Your task to perform on an android device: Show me productivity apps on the Play Store Image 0: 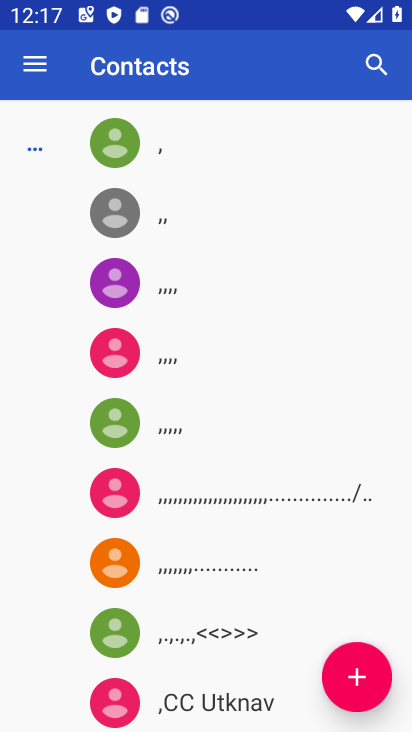
Step 0: press back button
Your task to perform on an android device: Show me productivity apps on the Play Store Image 1: 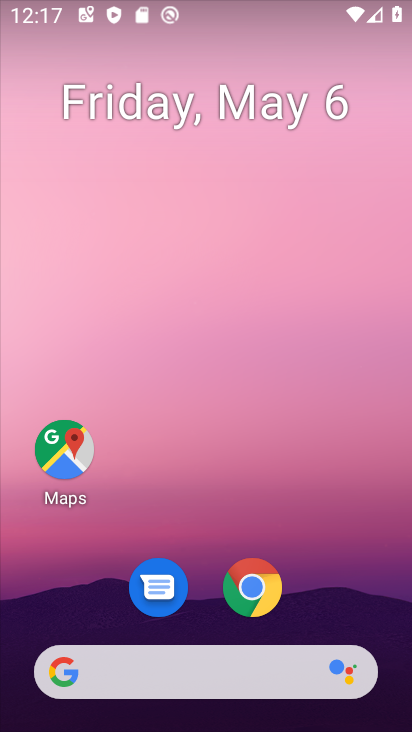
Step 1: drag from (185, 558) to (294, 53)
Your task to perform on an android device: Show me productivity apps on the Play Store Image 2: 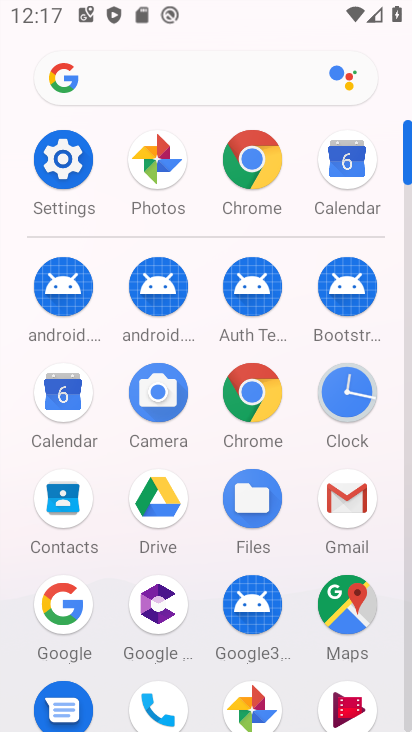
Step 2: drag from (168, 652) to (337, 106)
Your task to perform on an android device: Show me productivity apps on the Play Store Image 3: 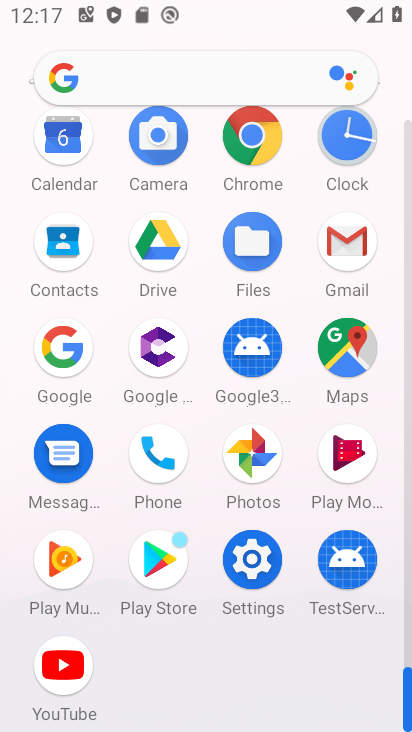
Step 3: click (158, 567)
Your task to perform on an android device: Show me productivity apps on the Play Store Image 4: 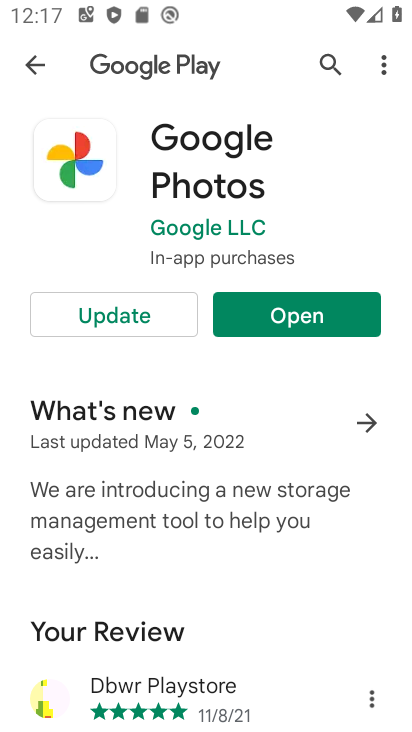
Step 4: click (46, 55)
Your task to perform on an android device: Show me productivity apps on the Play Store Image 5: 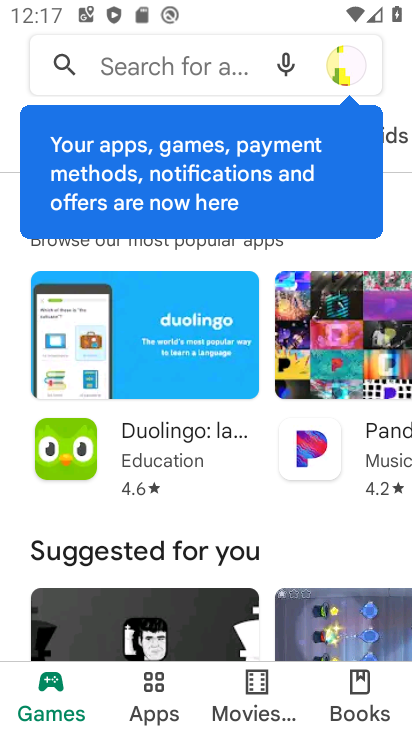
Step 5: click (148, 702)
Your task to perform on an android device: Show me productivity apps on the Play Store Image 6: 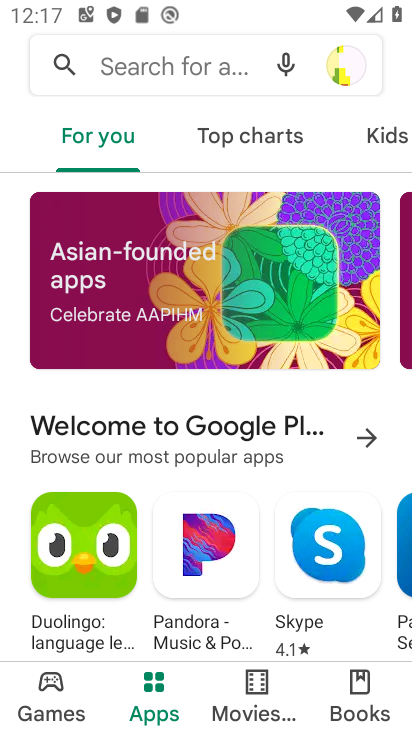
Step 6: drag from (110, 626) to (231, 160)
Your task to perform on an android device: Show me productivity apps on the Play Store Image 7: 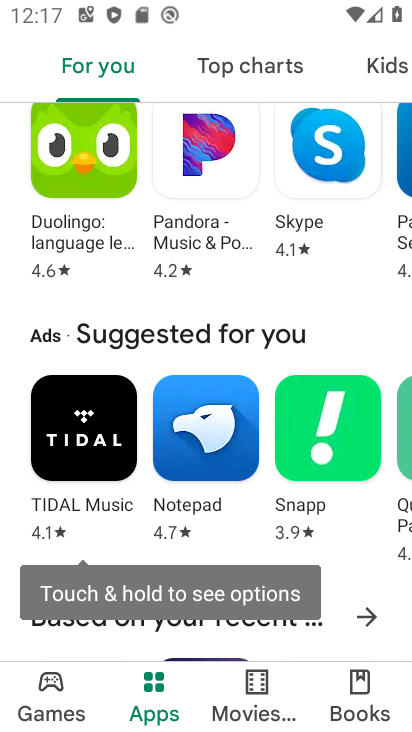
Step 7: drag from (176, 543) to (255, 114)
Your task to perform on an android device: Show me productivity apps on the Play Store Image 8: 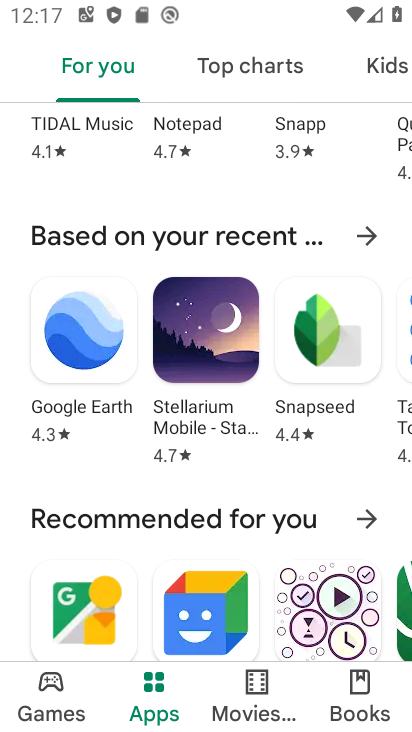
Step 8: drag from (240, 163) to (192, 362)
Your task to perform on an android device: Show me productivity apps on the Play Store Image 9: 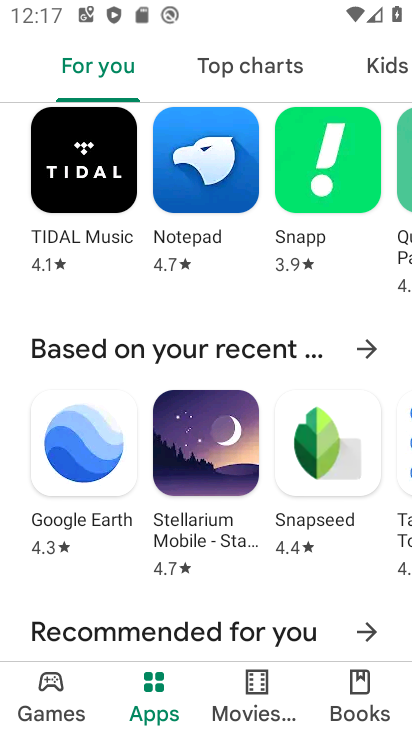
Step 9: drag from (146, 615) to (253, 164)
Your task to perform on an android device: Show me productivity apps on the Play Store Image 10: 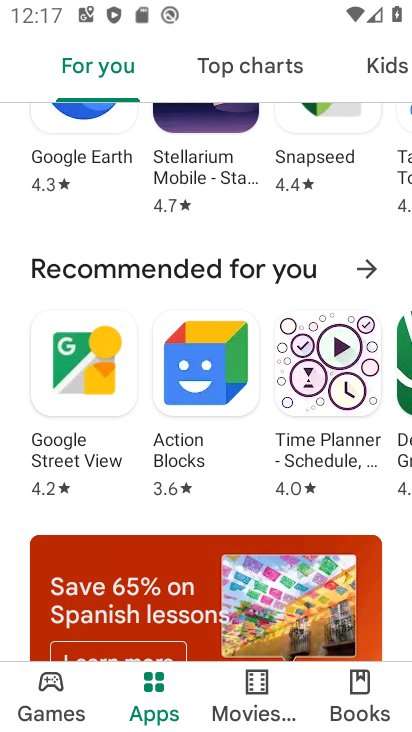
Step 10: drag from (126, 596) to (289, 60)
Your task to perform on an android device: Show me productivity apps on the Play Store Image 11: 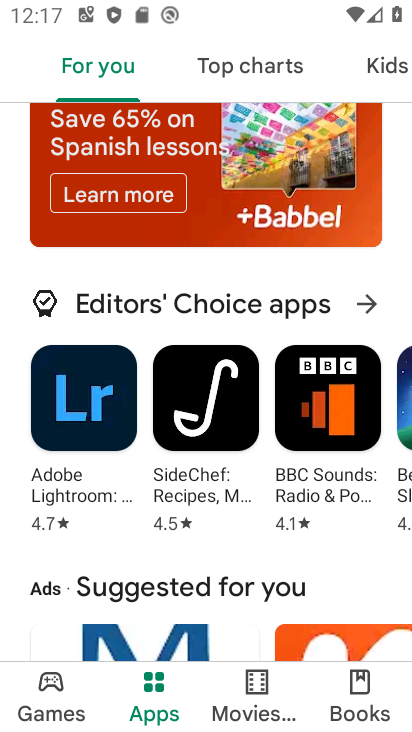
Step 11: drag from (140, 530) to (179, 381)
Your task to perform on an android device: Show me productivity apps on the Play Store Image 12: 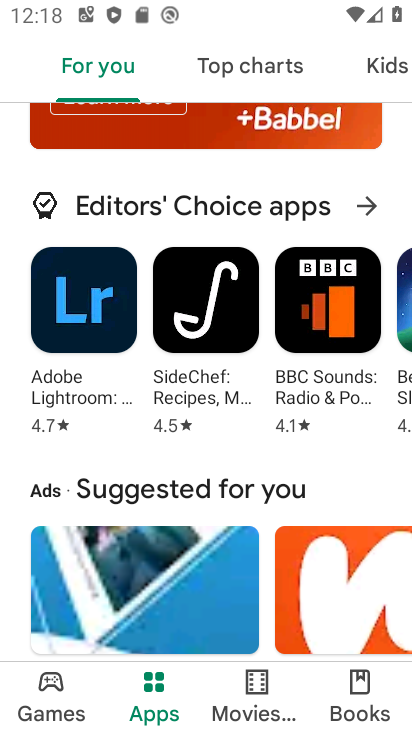
Step 12: drag from (111, 567) to (216, 68)
Your task to perform on an android device: Show me productivity apps on the Play Store Image 13: 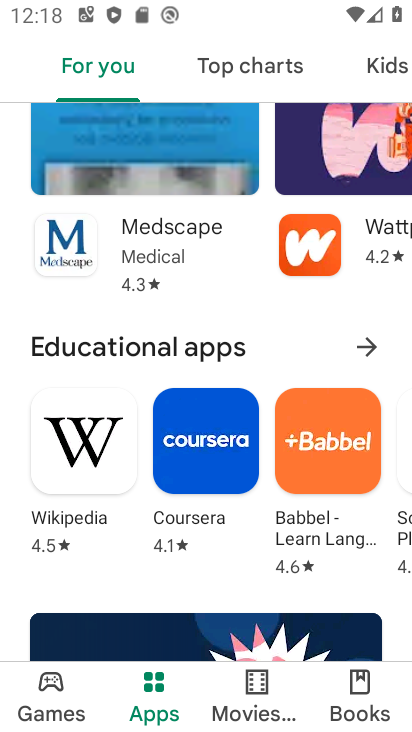
Step 13: drag from (128, 611) to (220, 91)
Your task to perform on an android device: Show me productivity apps on the Play Store Image 14: 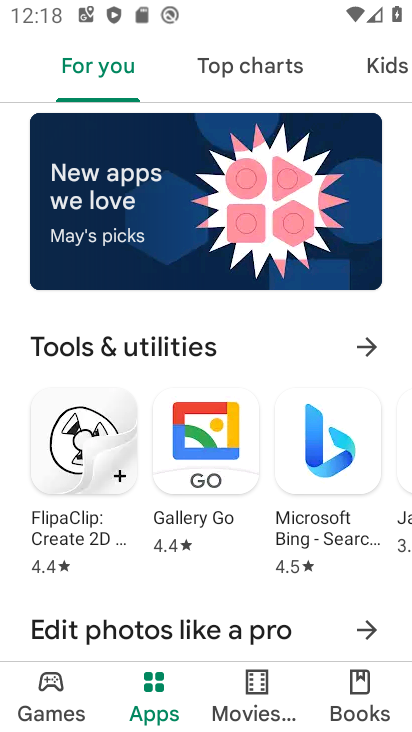
Step 14: drag from (153, 651) to (280, 68)
Your task to perform on an android device: Show me productivity apps on the Play Store Image 15: 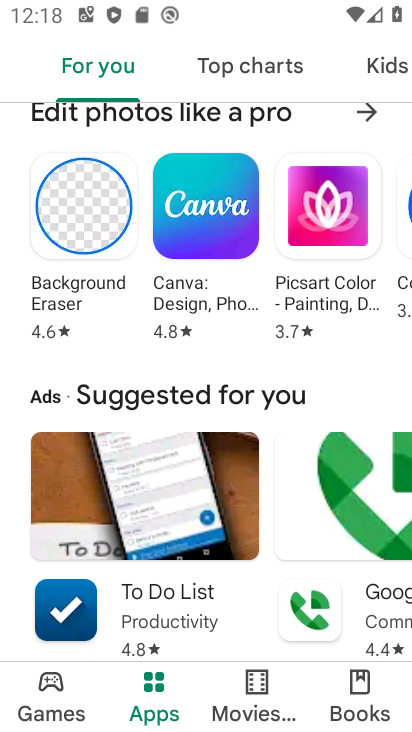
Step 15: drag from (177, 595) to (315, 8)
Your task to perform on an android device: Show me productivity apps on the Play Store Image 16: 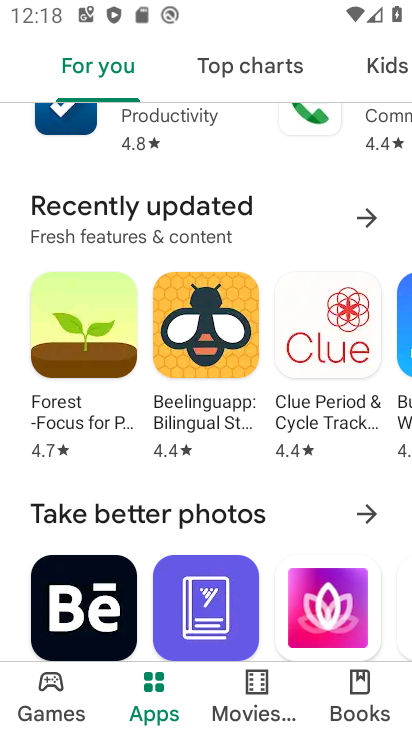
Step 16: drag from (185, 555) to (310, 47)
Your task to perform on an android device: Show me productivity apps on the Play Store Image 17: 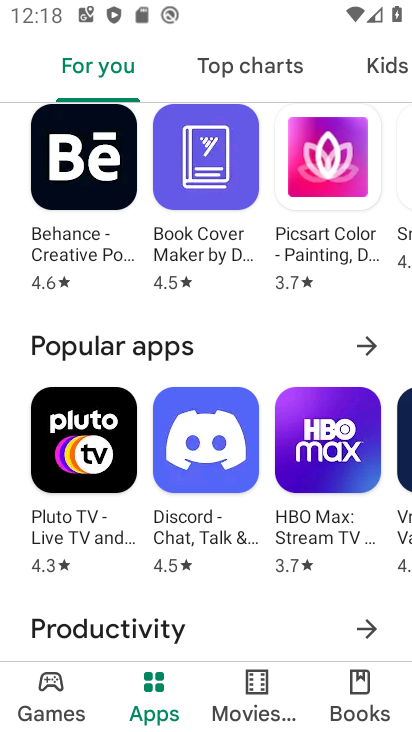
Step 17: drag from (162, 624) to (268, 216)
Your task to perform on an android device: Show me productivity apps on the Play Store Image 18: 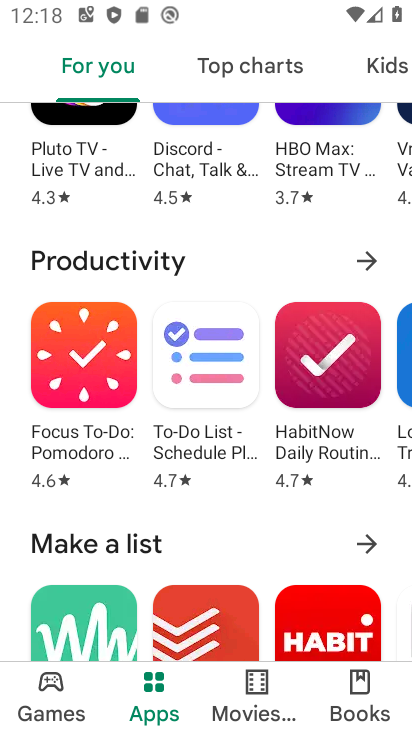
Step 18: click (370, 261)
Your task to perform on an android device: Show me productivity apps on the Play Store Image 19: 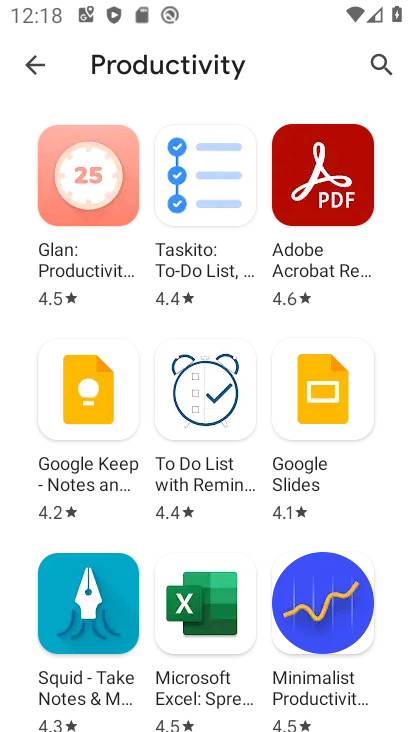
Step 19: task complete